Your task to perform on an android device: turn on the 12-hour format for clock Image 0: 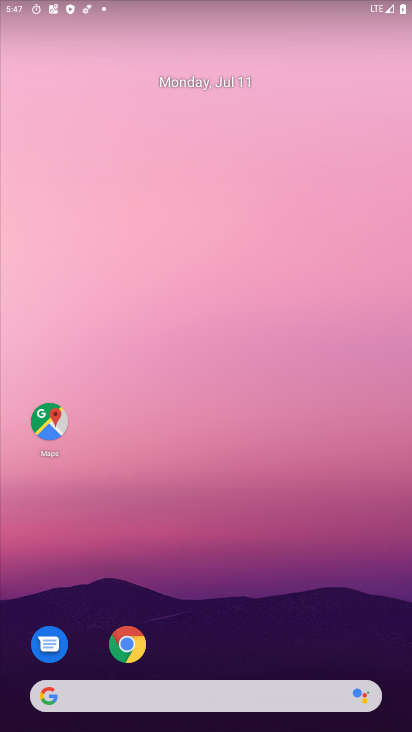
Step 0: drag from (202, 694) to (192, 19)
Your task to perform on an android device: turn on the 12-hour format for clock Image 1: 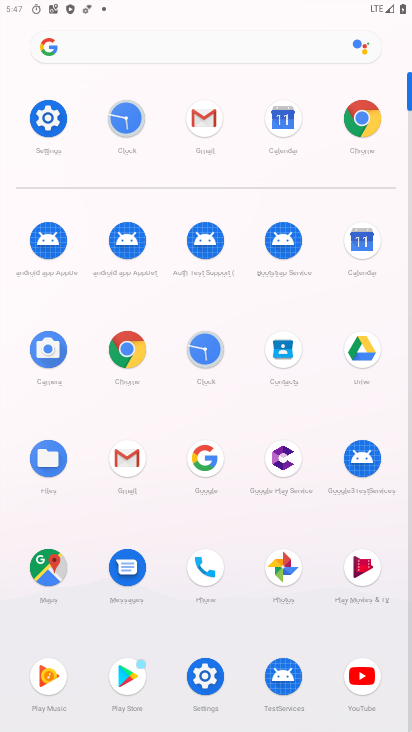
Step 1: click (209, 351)
Your task to perform on an android device: turn on the 12-hour format for clock Image 2: 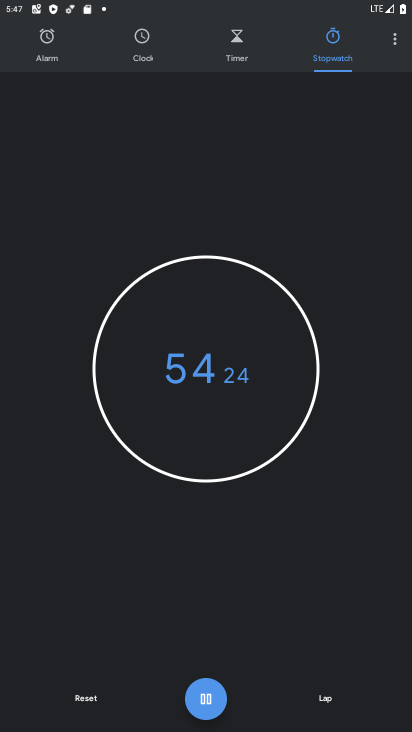
Step 2: click (399, 36)
Your task to perform on an android device: turn on the 12-hour format for clock Image 3: 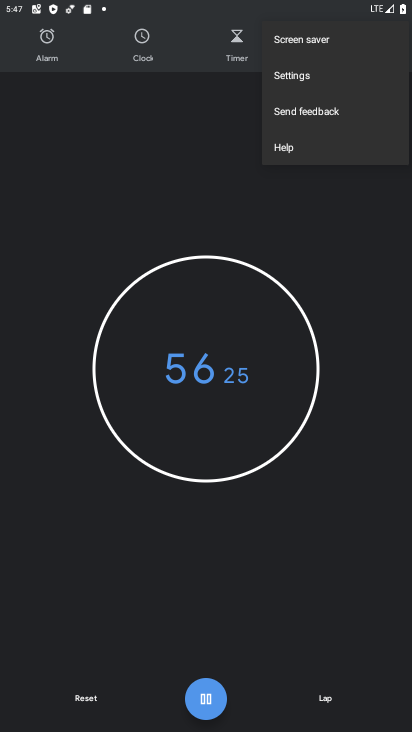
Step 3: click (317, 78)
Your task to perform on an android device: turn on the 12-hour format for clock Image 4: 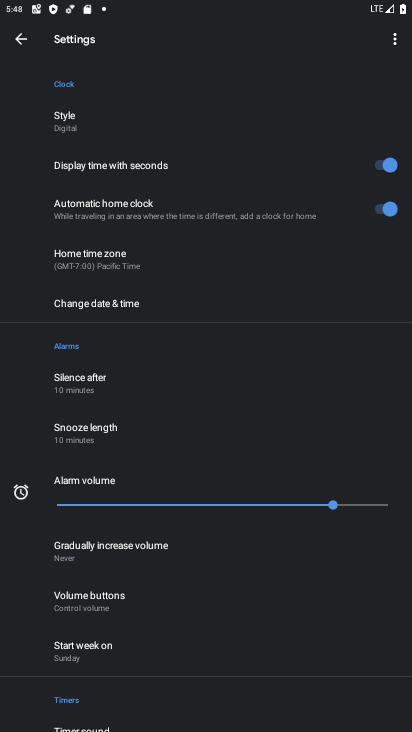
Step 4: click (128, 296)
Your task to perform on an android device: turn on the 12-hour format for clock Image 5: 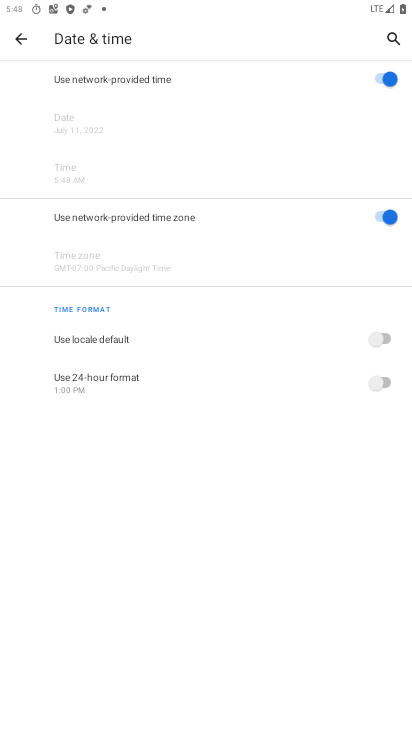
Step 5: task complete